Your task to perform on an android device: all mails in gmail Image 0: 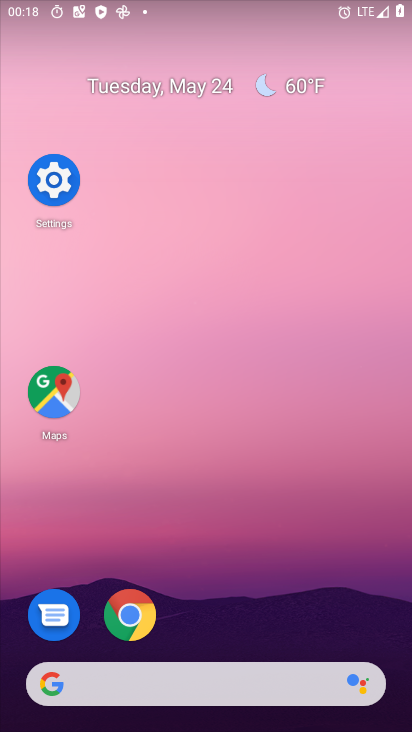
Step 0: drag from (236, 607) to (290, 6)
Your task to perform on an android device: all mails in gmail Image 1: 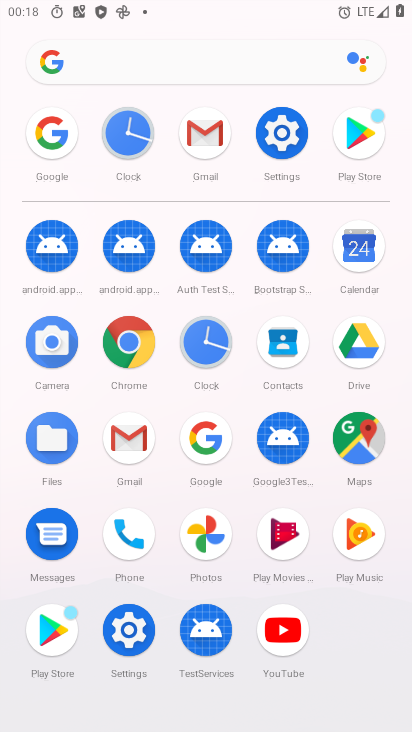
Step 1: click (212, 136)
Your task to perform on an android device: all mails in gmail Image 2: 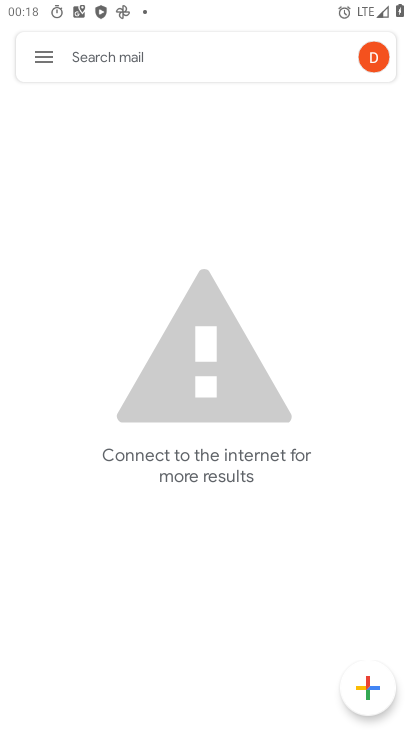
Step 2: click (49, 60)
Your task to perform on an android device: all mails in gmail Image 3: 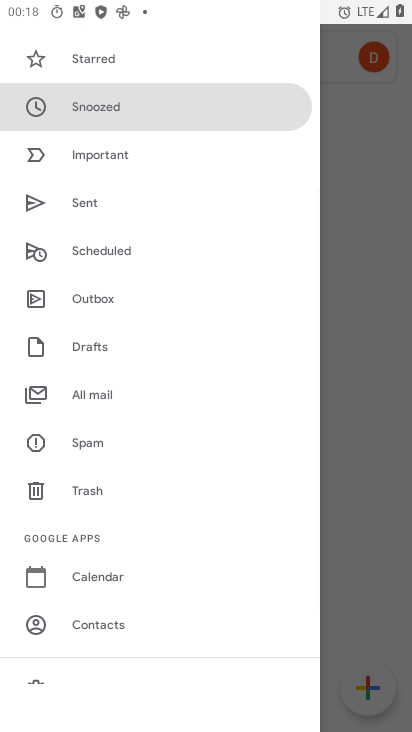
Step 3: click (88, 392)
Your task to perform on an android device: all mails in gmail Image 4: 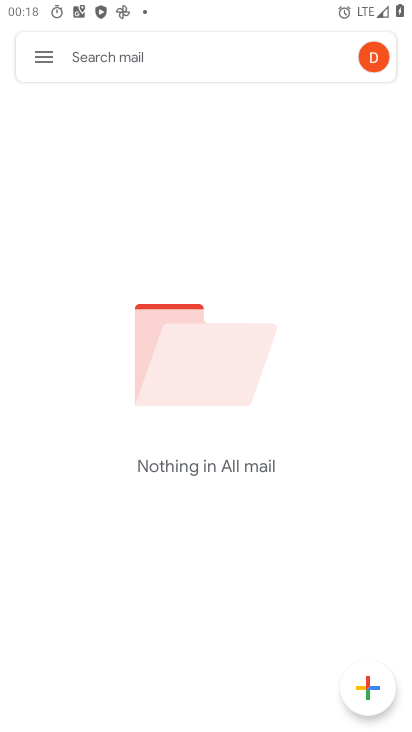
Step 4: task complete